Your task to perform on an android device: turn off notifications settings in the gmail app Image 0: 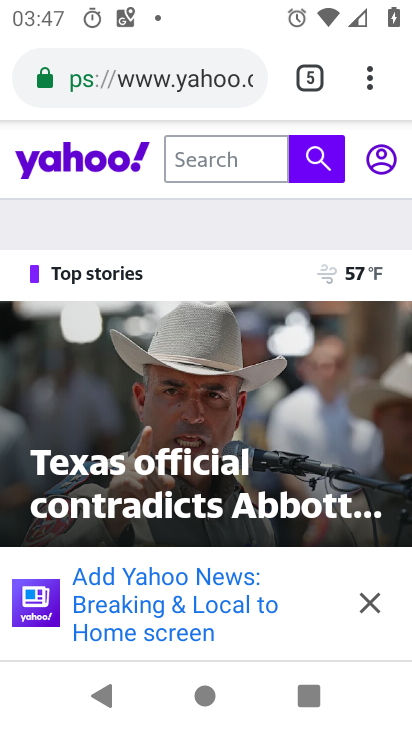
Step 0: press home button
Your task to perform on an android device: turn off notifications settings in the gmail app Image 1: 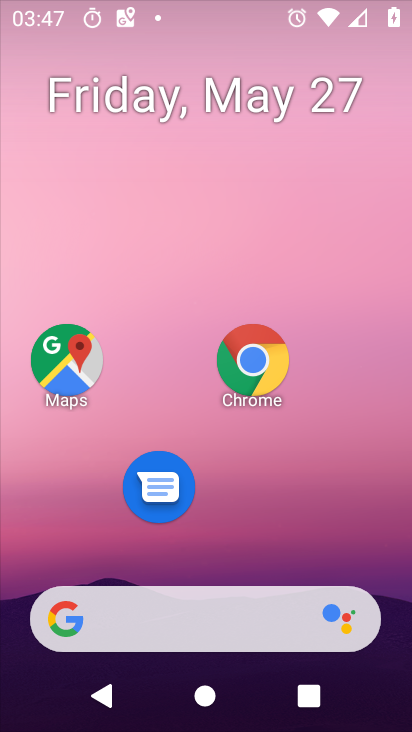
Step 1: drag from (254, 511) to (285, 123)
Your task to perform on an android device: turn off notifications settings in the gmail app Image 2: 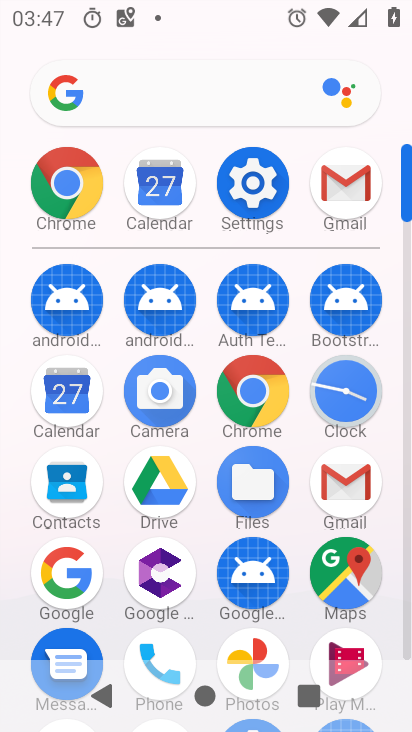
Step 2: click (347, 180)
Your task to perform on an android device: turn off notifications settings in the gmail app Image 3: 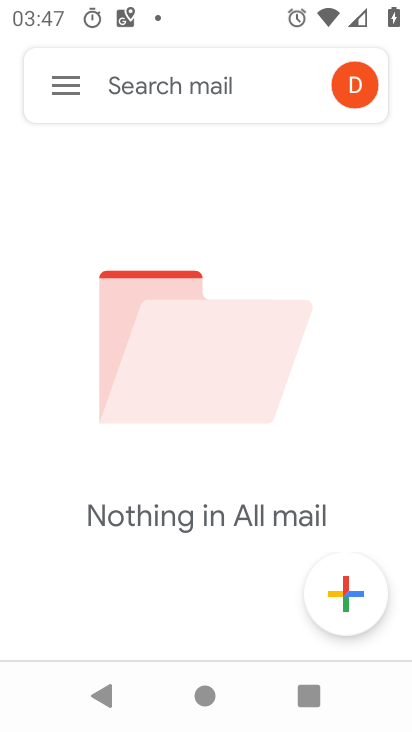
Step 3: click (47, 87)
Your task to perform on an android device: turn off notifications settings in the gmail app Image 4: 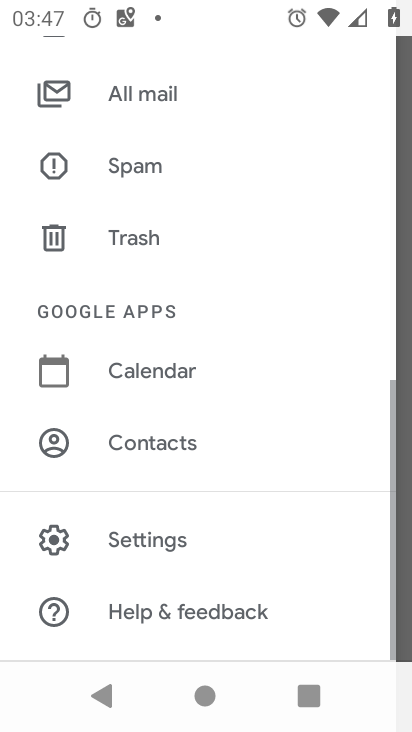
Step 4: drag from (226, 506) to (261, 345)
Your task to perform on an android device: turn off notifications settings in the gmail app Image 5: 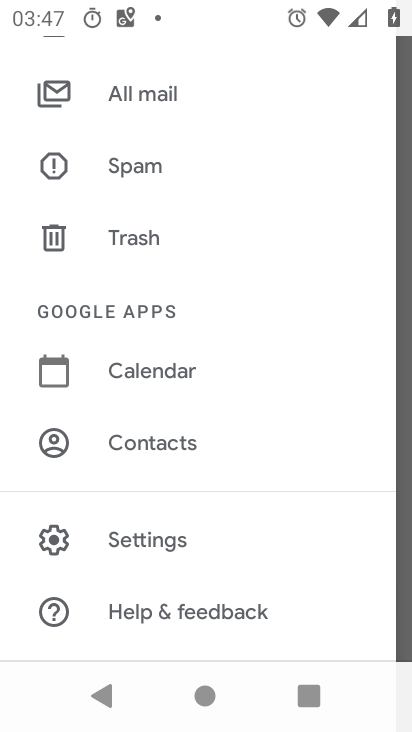
Step 5: click (165, 528)
Your task to perform on an android device: turn off notifications settings in the gmail app Image 6: 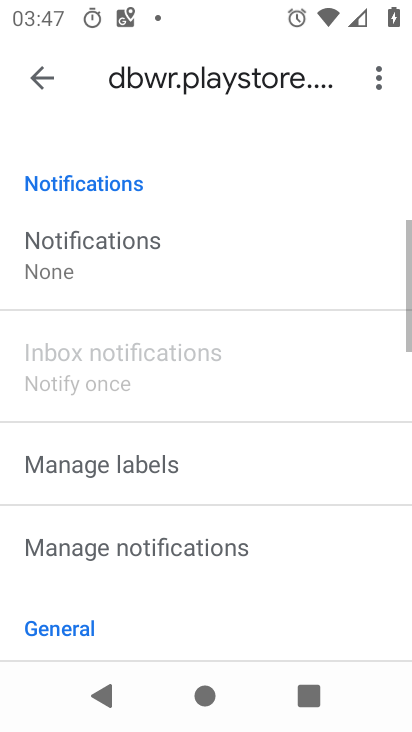
Step 6: drag from (194, 629) to (198, 498)
Your task to perform on an android device: turn off notifications settings in the gmail app Image 7: 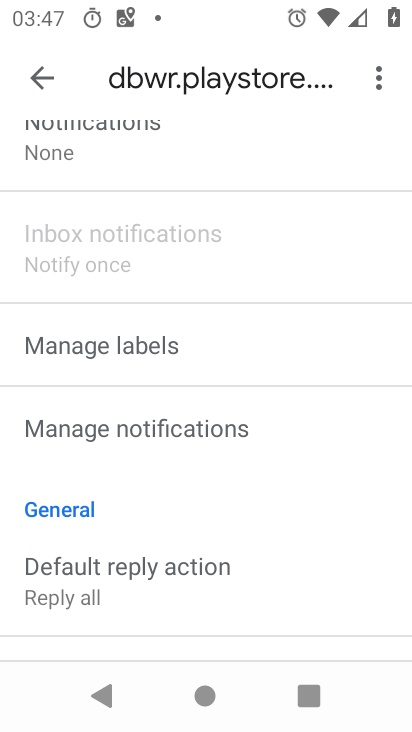
Step 7: click (106, 128)
Your task to perform on an android device: turn off notifications settings in the gmail app Image 8: 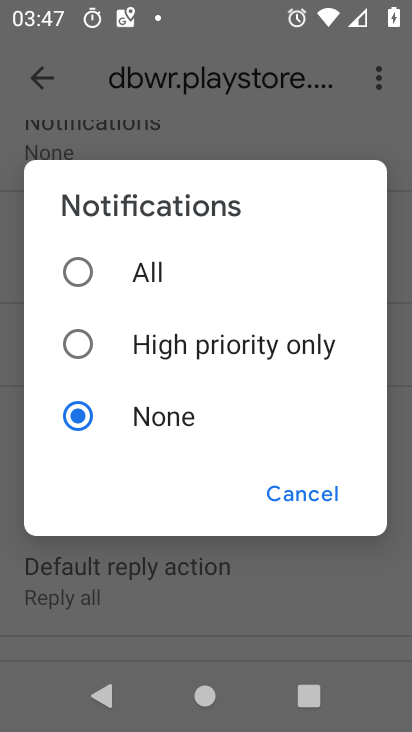
Step 8: task complete